Your task to perform on an android device: Open the web browser Image 0: 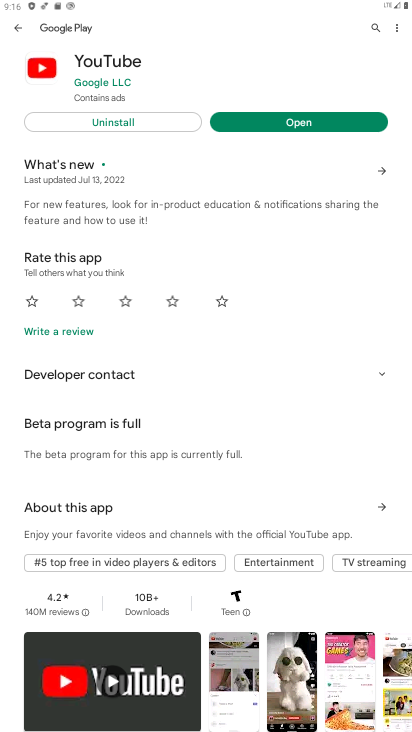
Step 0: press home button
Your task to perform on an android device: Open the web browser Image 1: 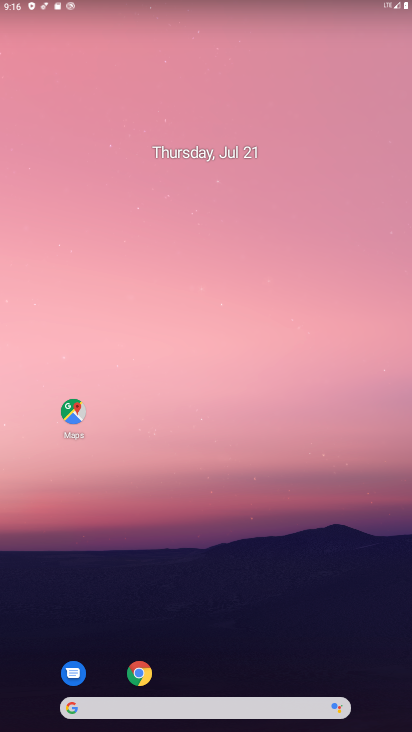
Step 1: click (141, 672)
Your task to perform on an android device: Open the web browser Image 2: 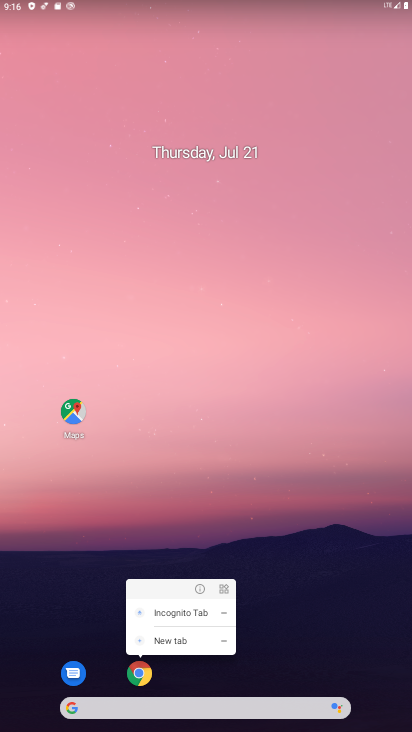
Step 2: click (141, 672)
Your task to perform on an android device: Open the web browser Image 3: 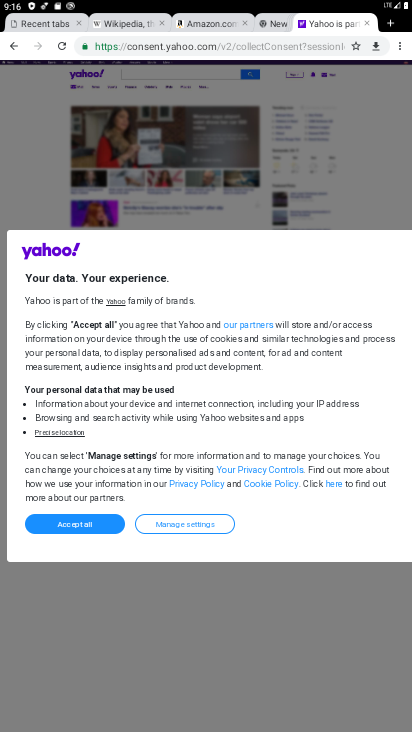
Step 3: task complete